Your task to perform on an android device: check data usage Image 0: 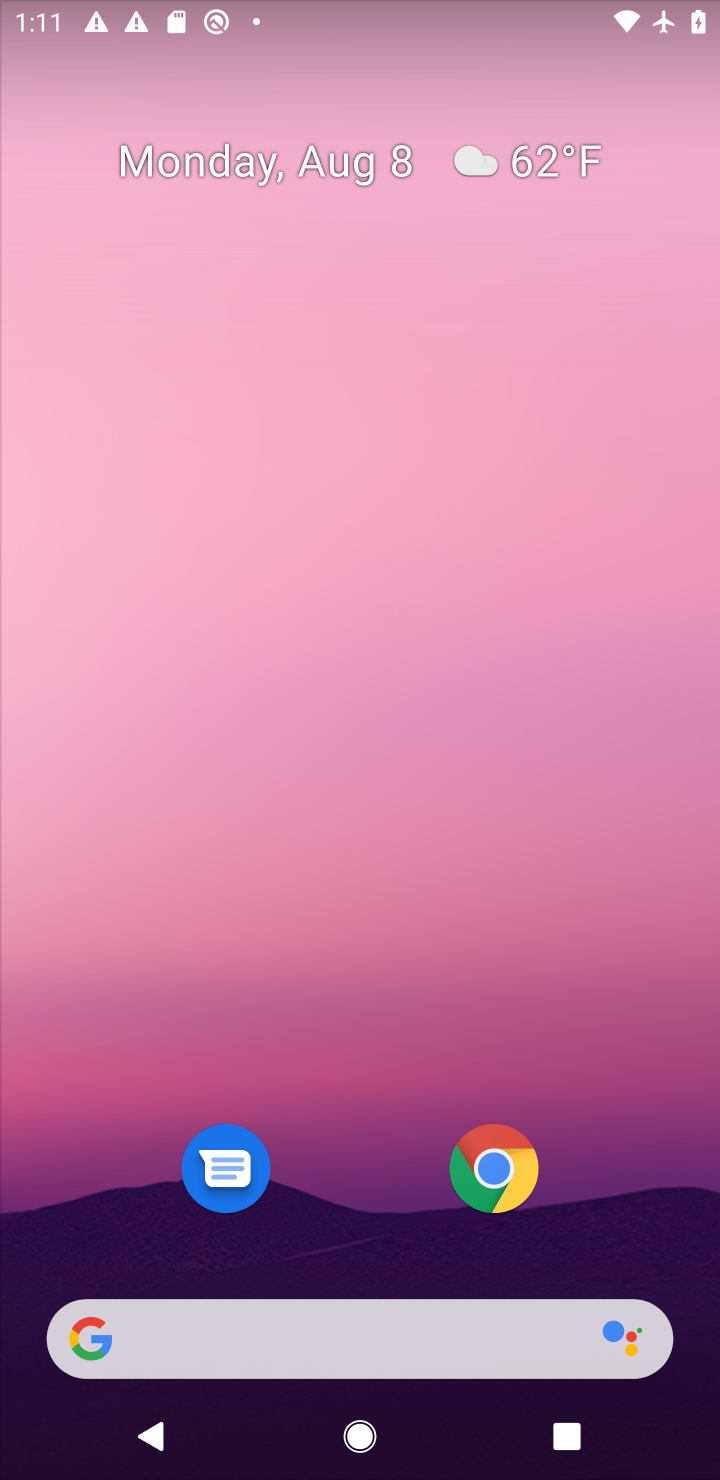
Step 0: drag from (375, 1280) to (313, 18)
Your task to perform on an android device: check data usage Image 1: 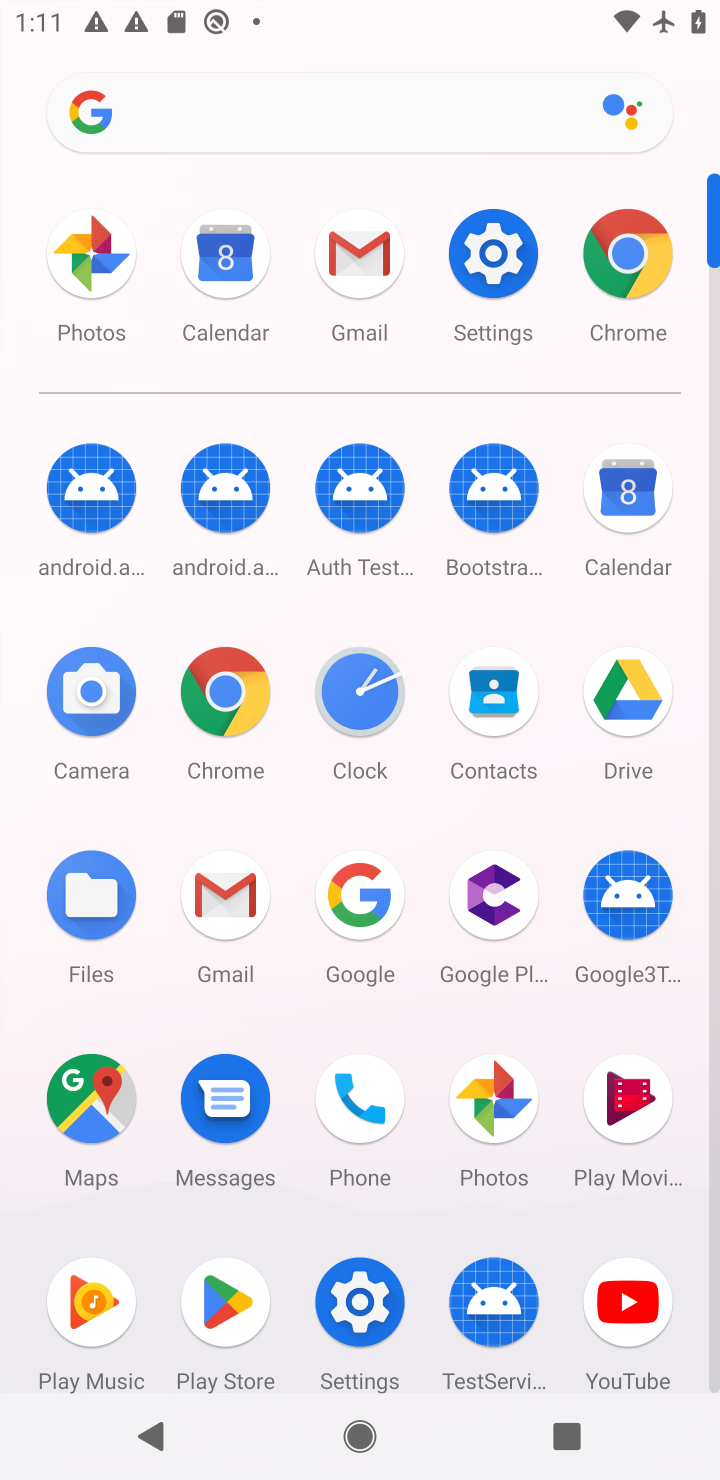
Step 1: click (475, 250)
Your task to perform on an android device: check data usage Image 2: 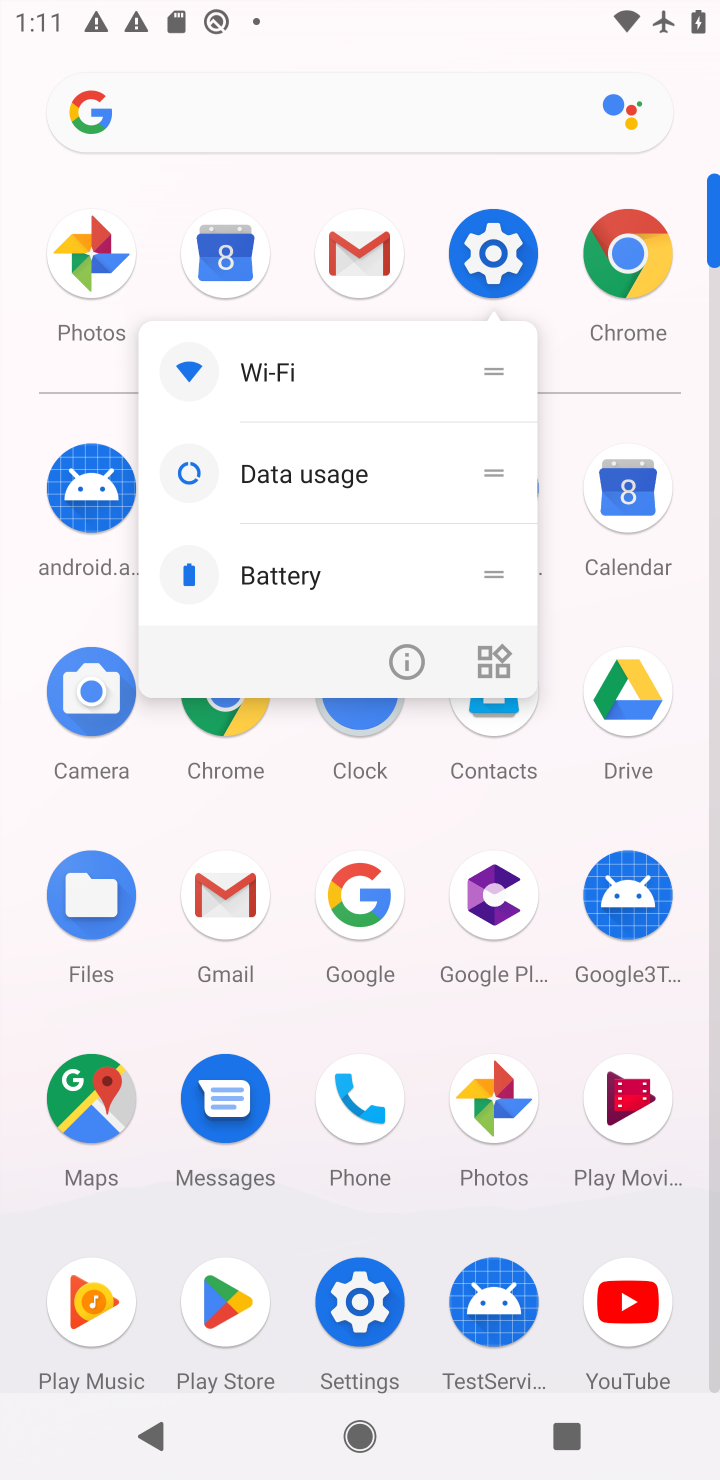
Step 2: click (468, 278)
Your task to perform on an android device: check data usage Image 3: 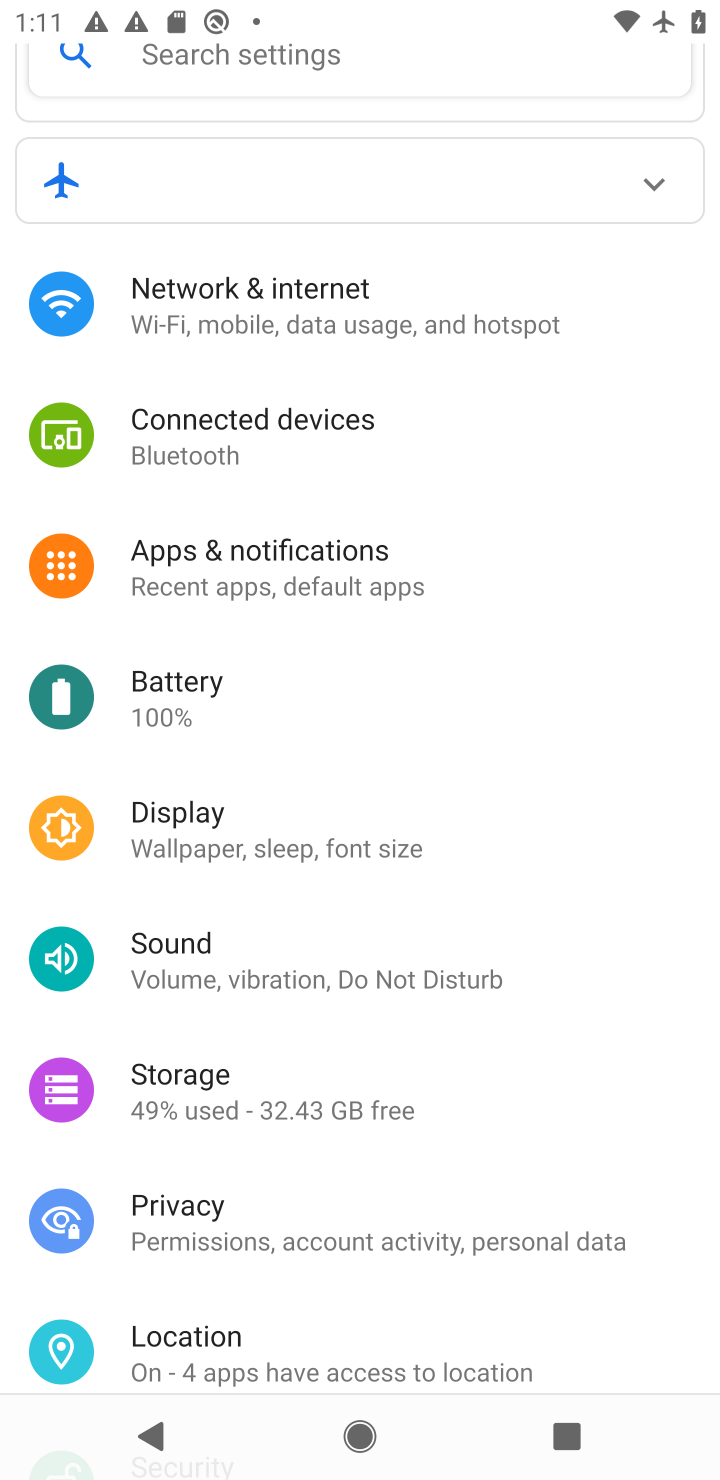
Step 3: click (244, 357)
Your task to perform on an android device: check data usage Image 4: 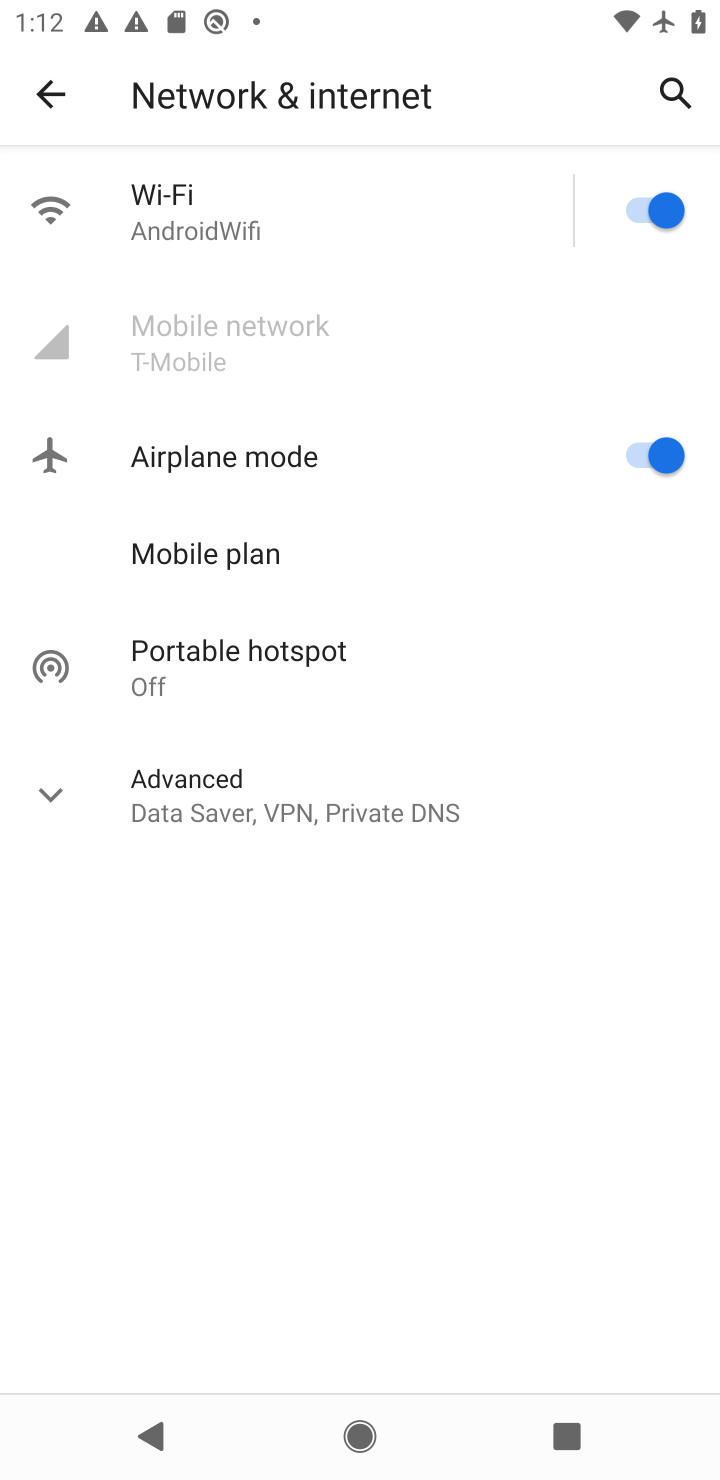
Step 4: task complete